Your task to perform on an android device: Search for vegetarian restaurants on Maps Image 0: 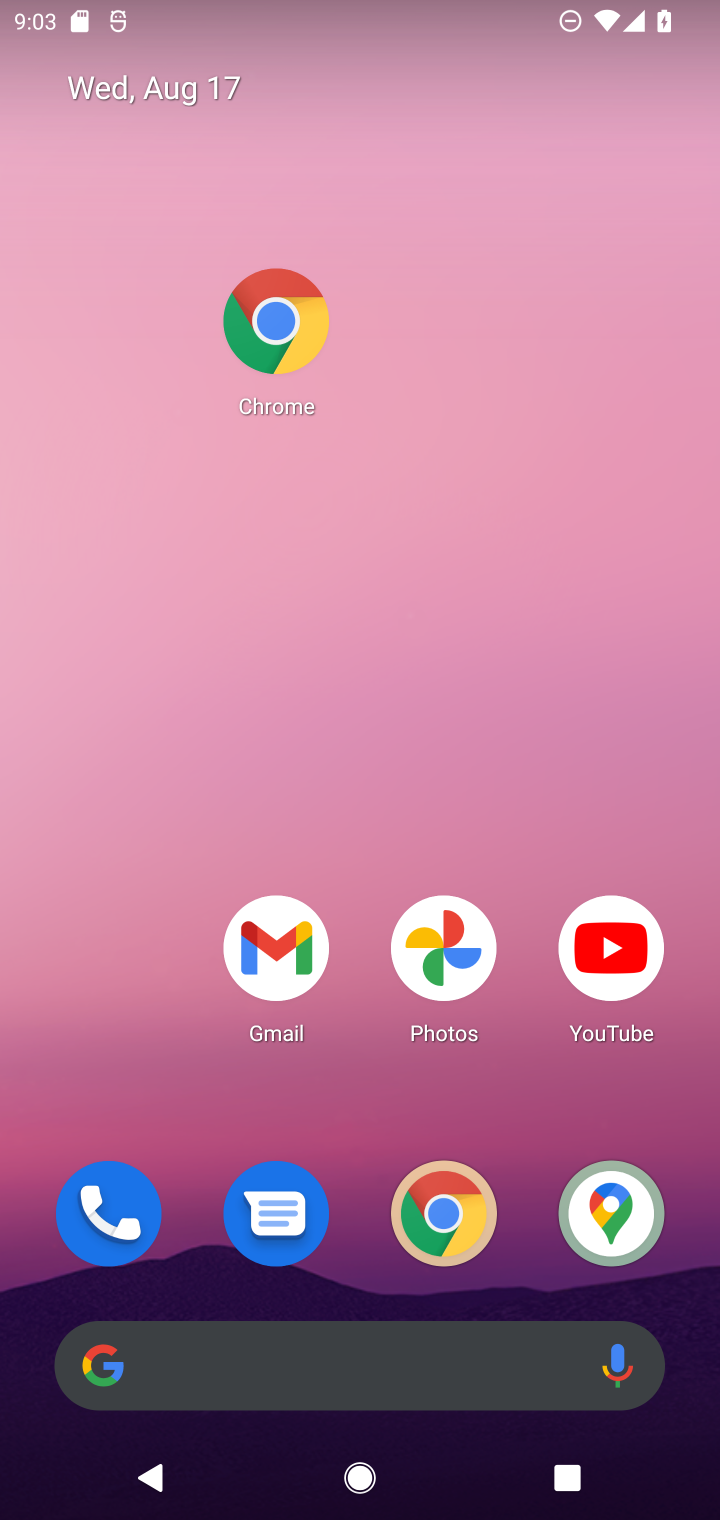
Step 0: click (591, 1199)
Your task to perform on an android device: Search for vegetarian restaurants on Maps Image 1: 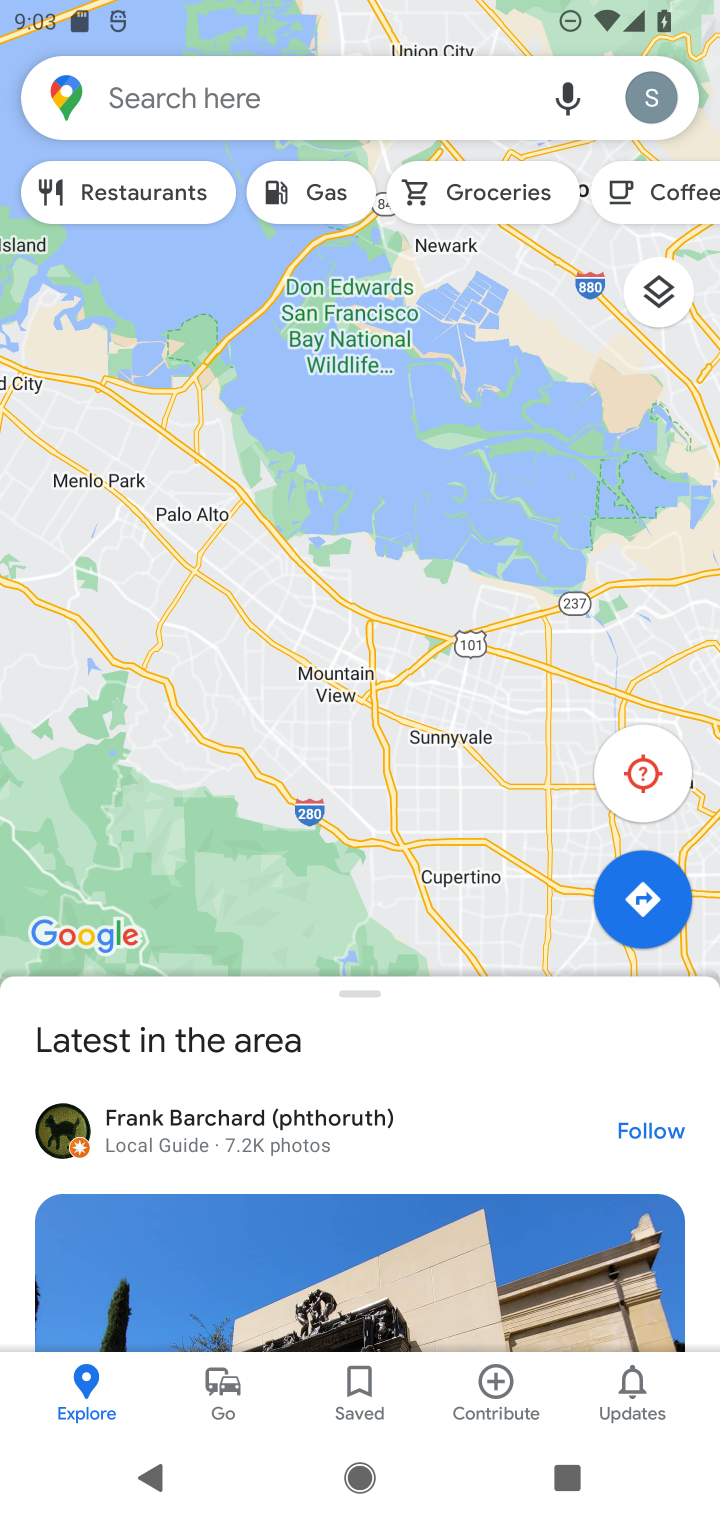
Step 1: click (283, 98)
Your task to perform on an android device: Search for vegetarian restaurants on Maps Image 2: 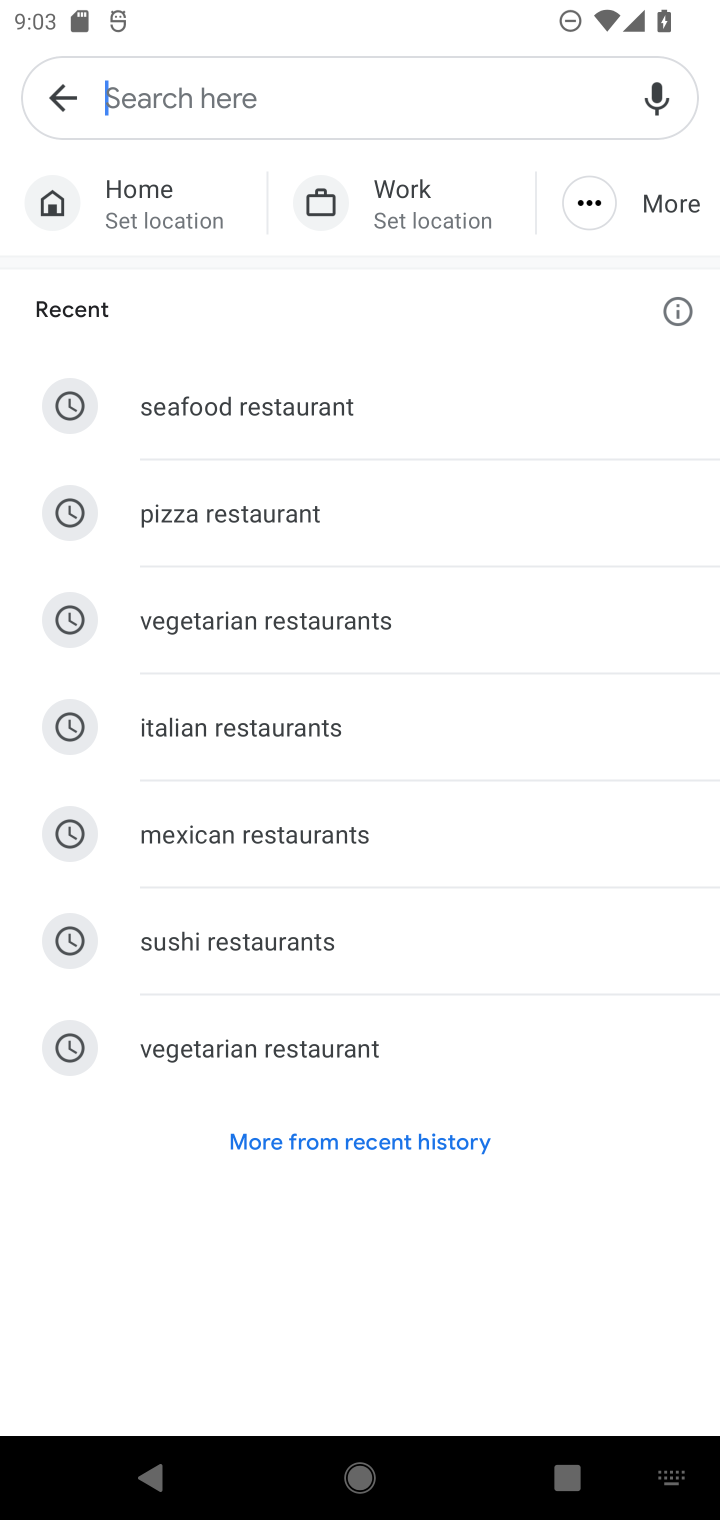
Step 2: click (408, 617)
Your task to perform on an android device: Search for vegetarian restaurants on Maps Image 3: 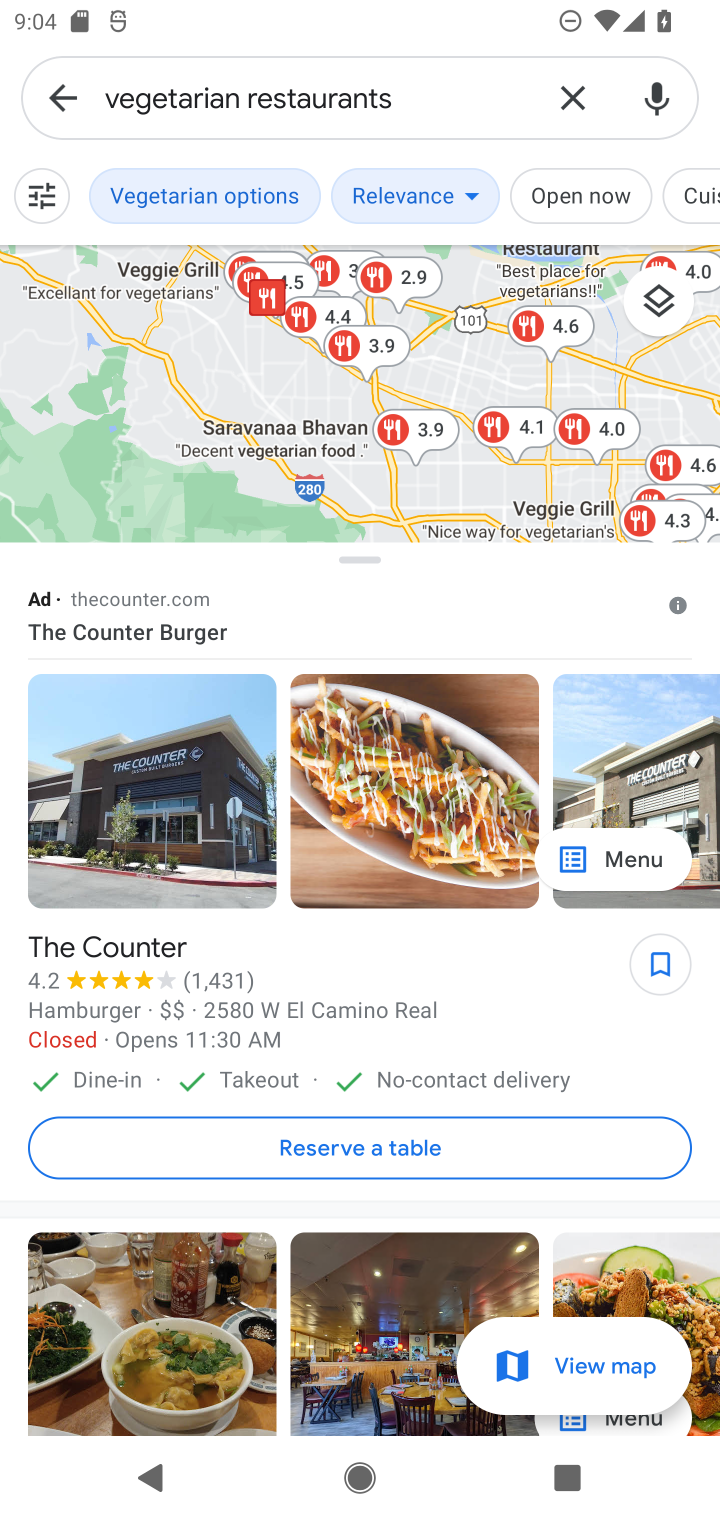
Step 3: task complete